Your task to perform on an android device: open app "DoorDash - Dasher" (install if not already installed) and enter user name: "resistor@inbox.com" and password: "cholera" Image 0: 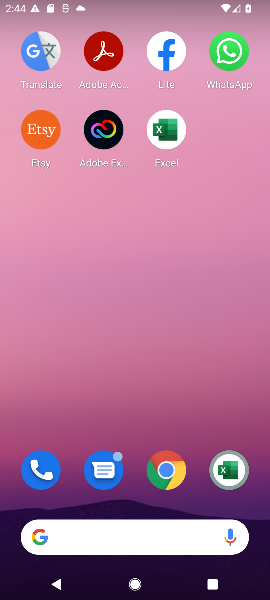
Step 0: drag from (95, 413) to (112, 62)
Your task to perform on an android device: open app "DoorDash - Dasher" (install if not already installed) and enter user name: "resistor@inbox.com" and password: "cholera" Image 1: 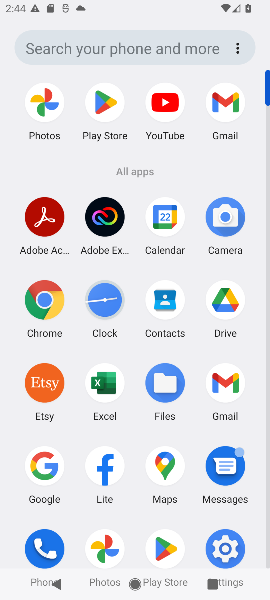
Step 1: click (159, 557)
Your task to perform on an android device: open app "DoorDash - Dasher" (install if not already installed) and enter user name: "resistor@inbox.com" and password: "cholera" Image 2: 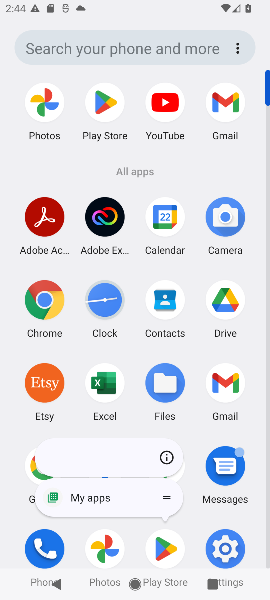
Step 2: click (162, 554)
Your task to perform on an android device: open app "DoorDash - Dasher" (install if not already installed) and enter user name: "resistor@inbox.com" and password: "cholera" Image 3: 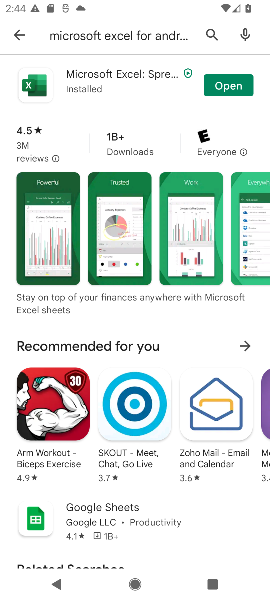
Step 3: click (19, 29)
Your task to perform on an android device: open app "DoorDash - Dasher" (install if not already installed) and enter user name: "resistor@inbox.com" and password: "cholera" Image 4: 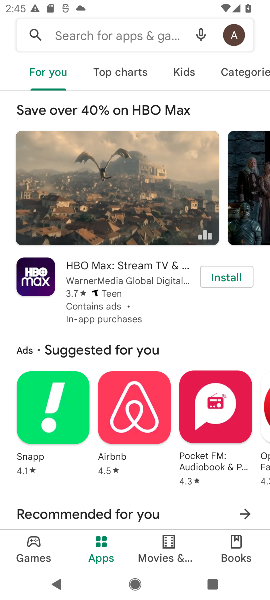
Step 4: click (126, 29)
Your task to perform on an android device: open app "DoorDash - Dasher" (install if not already installed) and enter user name: "resistor@inbox.com" and password: "cholera" Image 5: 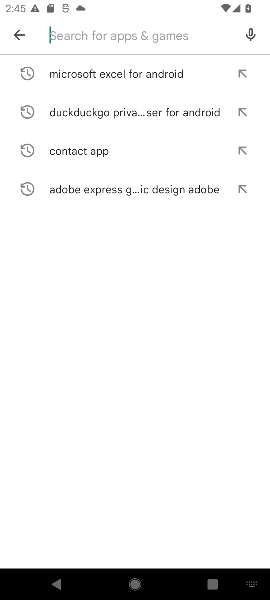
Step 5: type "DoorDash - Dasher "
Your task to perform on an android device: open app "DoorDash - Dasher" (install if not already installed) and enter user name: "resistor@inbox.com" and password: "cholera" Image 6: 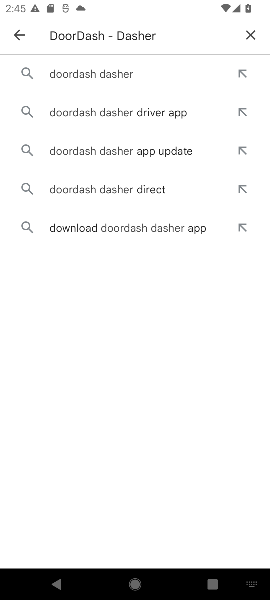
Step 6: click (98, 60)
Your task to perform on an android device: open app "DoorDash - Dasher" (install if not already installed) and enter user name: "resistor@inbox.com" and password: "cholera" Image 7: 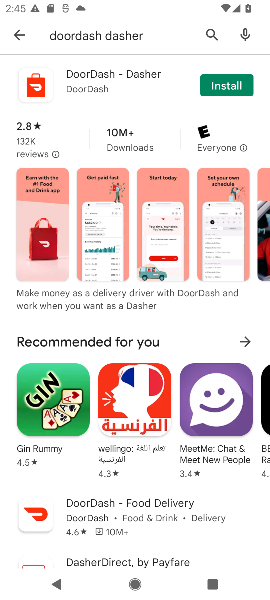
Step 7: click (230, 71)
Your task to perform on an android device: open app "DoorDash - Dasher" (install if not already installed) and enter user name: "resistor@inbox.com" and password: "cholera" Image 8: 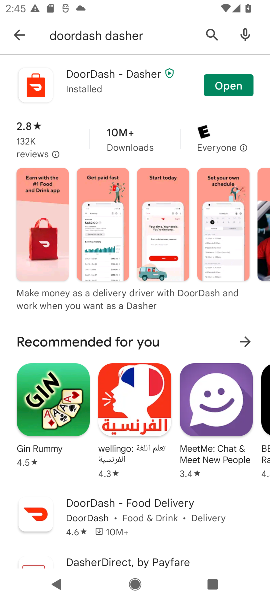
Step 8: click (227, 75)
Your task to perform on an android device: open app "DoorDash - Dasher" (install if not already installed) and enter user name: "resistor@inbox.com" and password: "cholera" Image 9: 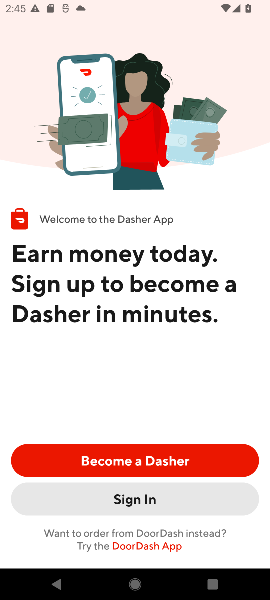
Step 9: task complete